Your task to perform on an android device: When is my next meeting? Image 0: 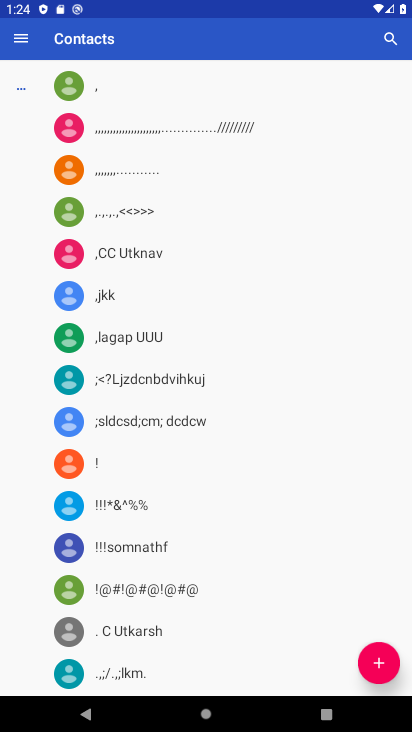
Step 0: press home button
Your task to perform on an android device: When is my next meeting? Image 1: 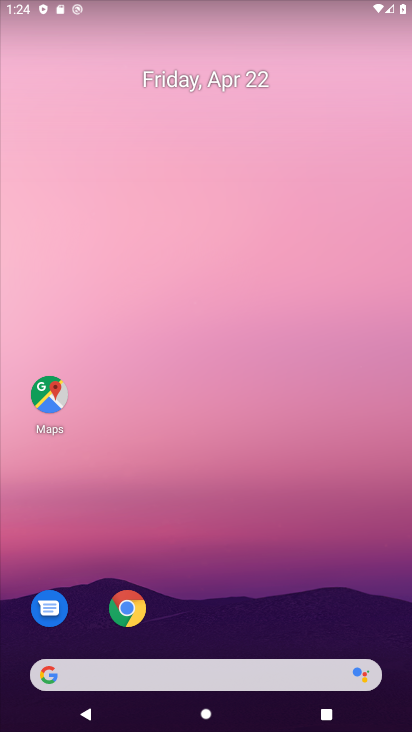
Step 1: drag from (269, 679) to (369, 173)
Your task to perform on an android device: When is my next meeting? Image 2: 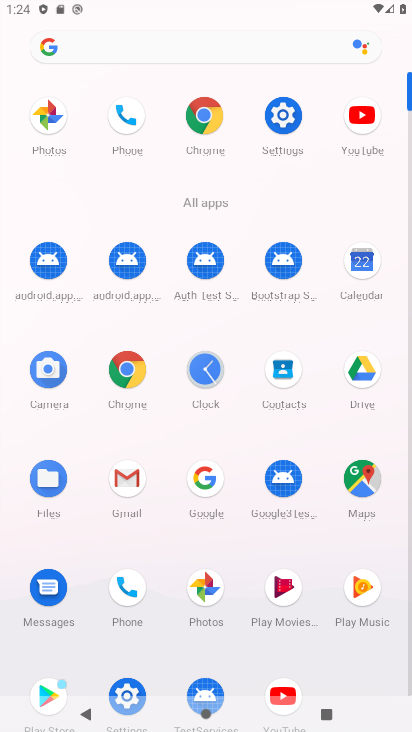
Step 2: click (371, 241)
Your task to perform on an android device: When is my next meeting? Image 3: 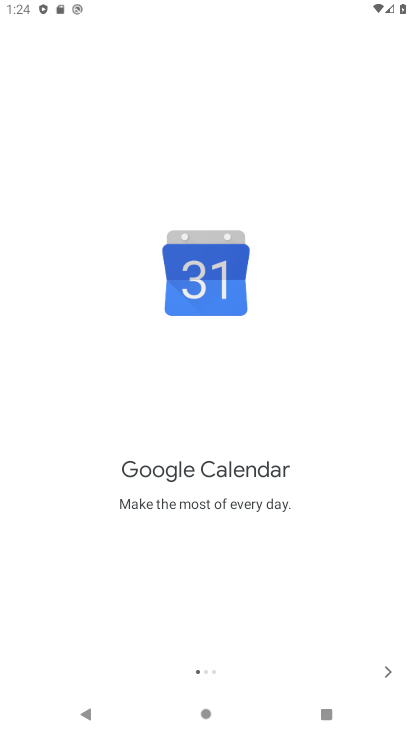
Step 3: click (388, 667)
Your task to perform on an android device: When is my next meeting? Image 4: 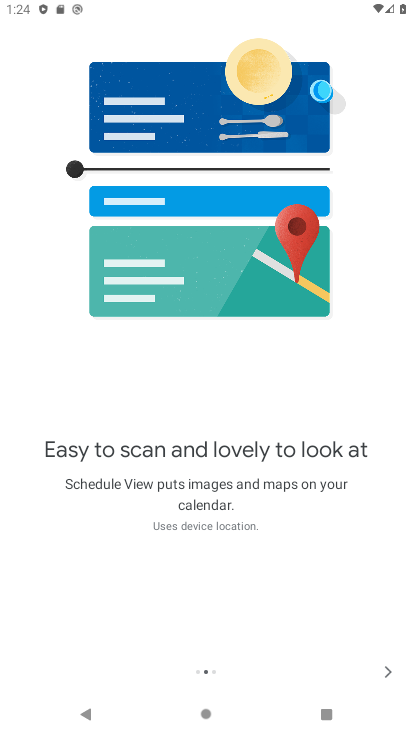
Step 4: click (388, 666)
Your task to perform on an android device: When is my next meeting? Image 5: 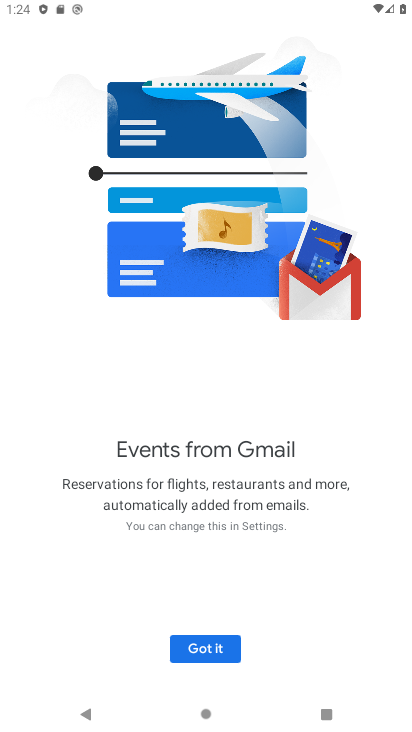
Step 5: click (212, 655)
Your task to perform on an android device: When is my next meeting? Image 6: 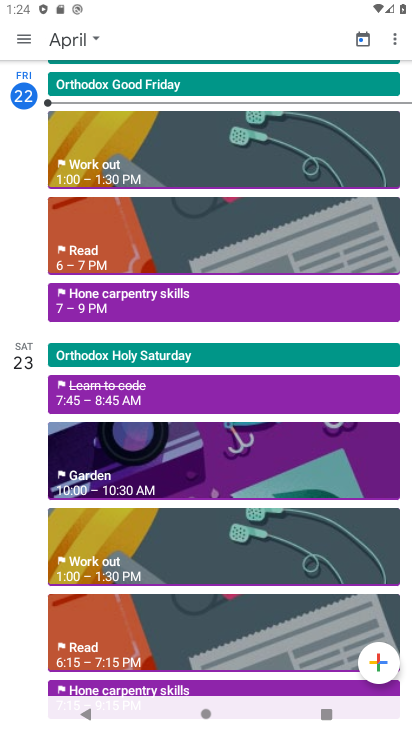
Step 6: click (25, 45)
Your task to perform on an android device: When is my next meeting? Image 7: 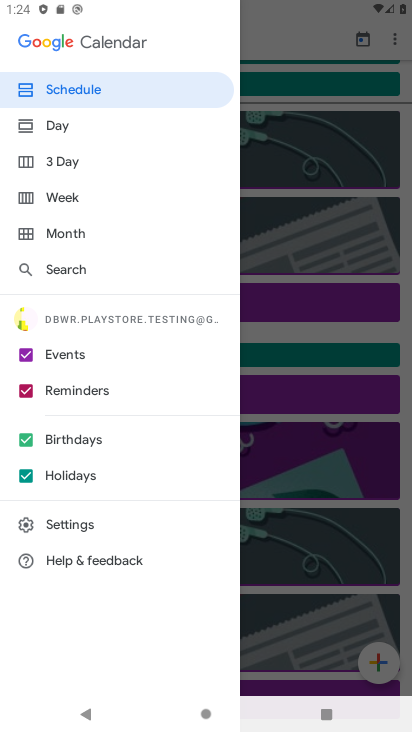
Step 7: click (62, 155)
Your task to perform on an android device: When is my next meeting? Image 8: 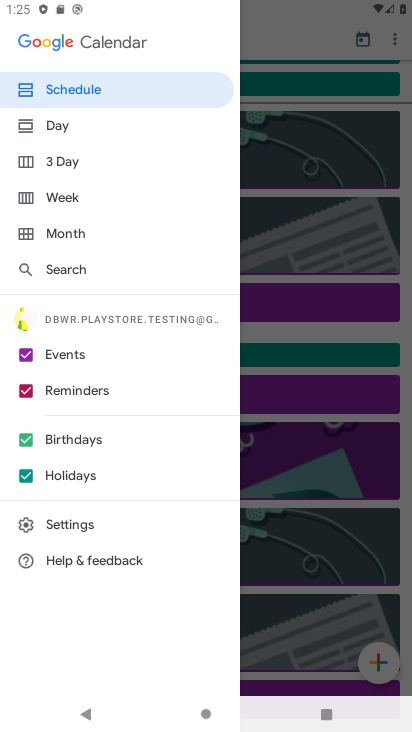
Step 8: click (62, 155)
Your task to perform on an android device: When is my next meeting? Image 9: 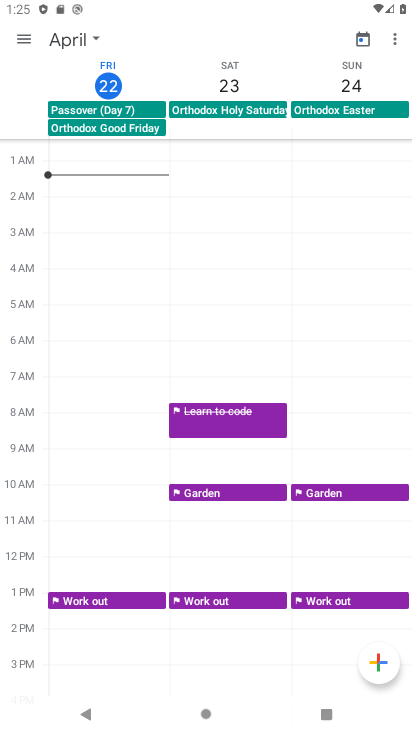
Step 9: task complete